Your task to perform on an android device: Show me popular videos on Youtube Image 0: 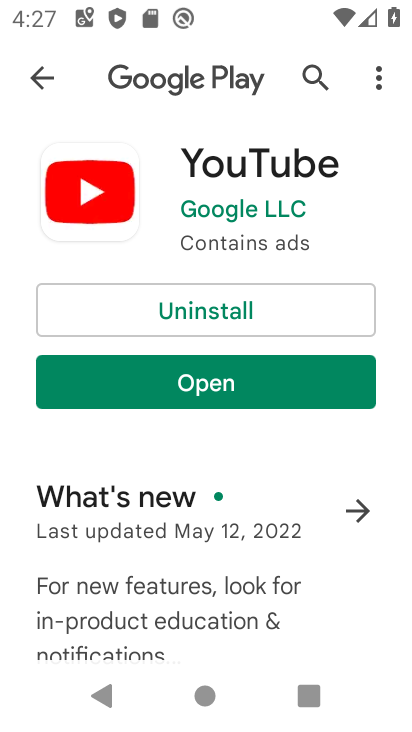
Step 0: press home button
Your task to perform on an android device: Show me popular videos on Youtube Image 1: 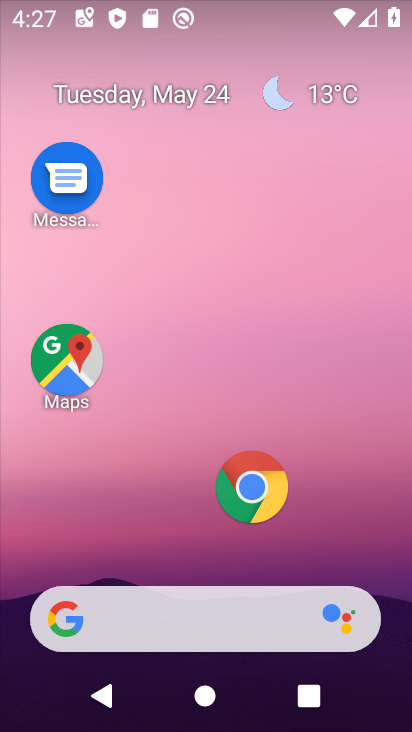
Step 1: drag from (170, 322) to (249, 18)
Your task to perform on an android device: Show me popular videos on Youtube Image 2: 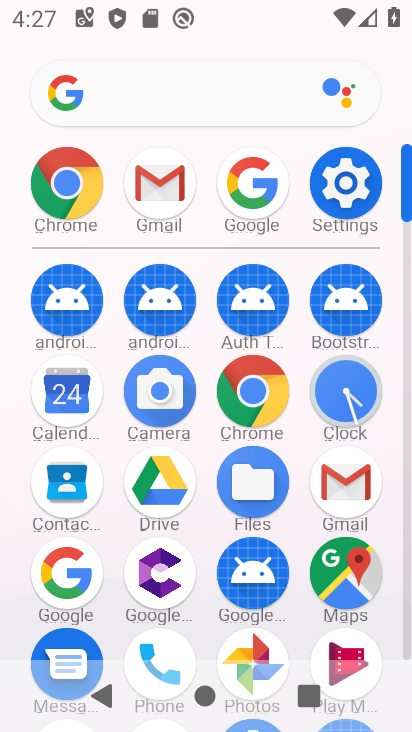
Step 2: drag from (241, 636) to (219, 191)
Your task to perform on an android device: Show me popular videos on Youtube Image 3: 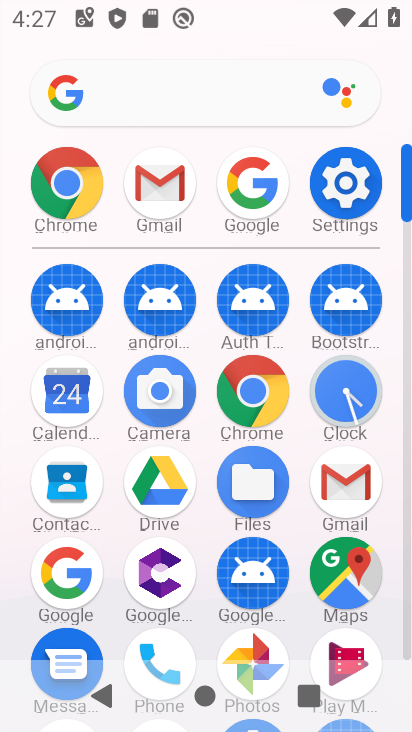
Step 3: drag from (303, 601) to (340, 246)
Your task to perform on an android device: Show me popular videos on Youtube Image 4: 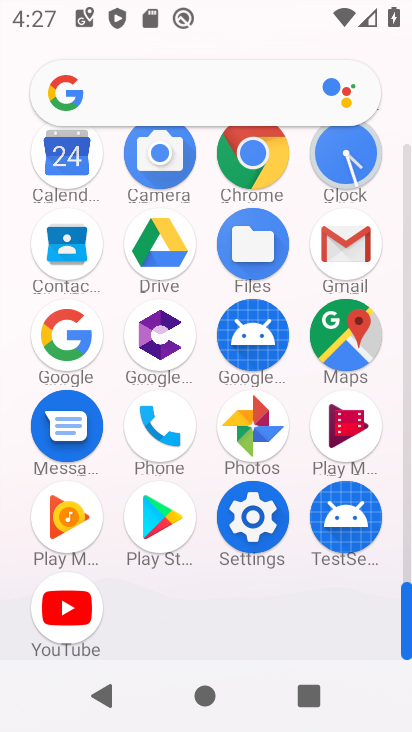
Step 4: click (65, 602)
Your task to perform on an android device: Show me popular videos on Youtube Image 5: 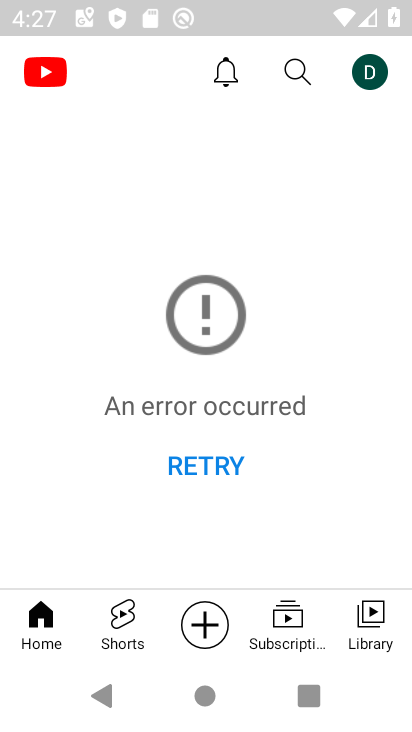
Step 5: click (367, 649)
Your task to perform on an android device: Show me popular videos on Youtube Image 6: 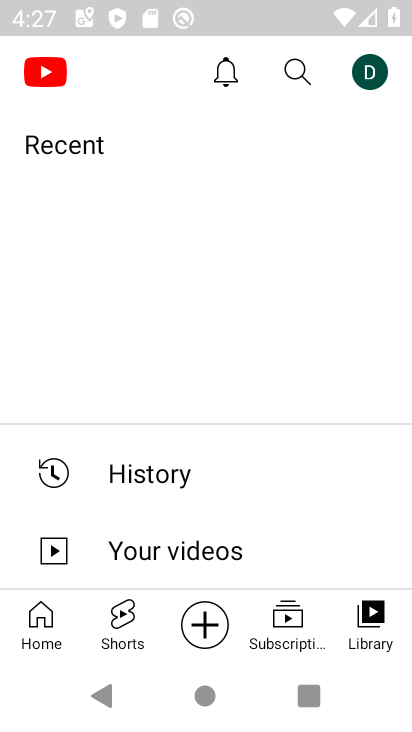
Step 6: click (383, 637)
Your task to perform on an android device: Show me popular videos on Youtube Image 7: 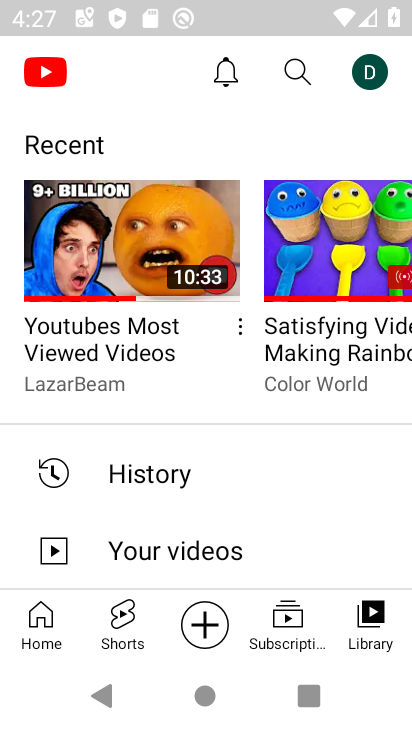
Step 7: task complete